Your task to perform on an android device: Go to Android settings Image 0: 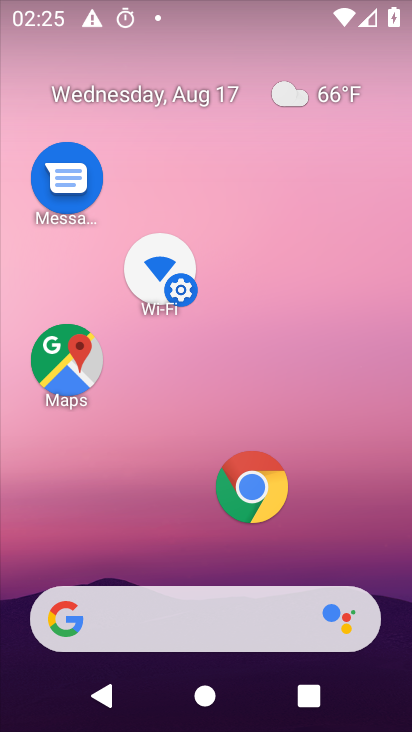
Step 0: press home button
Your task to perform on an android device: Go to Android settings Image 1: 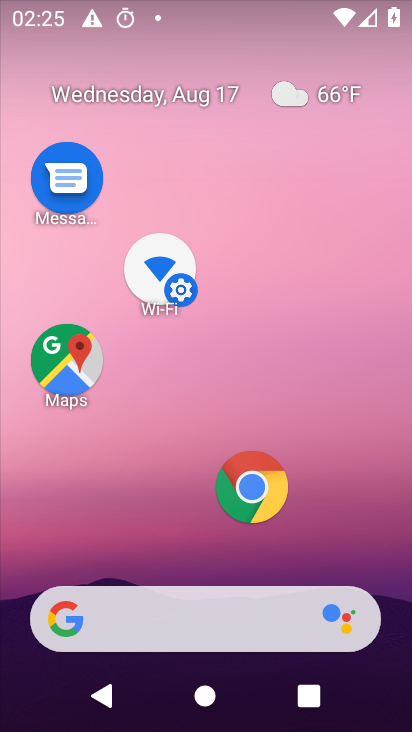
Step 1: drag from (208, 149) to (214, 68)
Your task to perform on an android device: Go to Android settings Image 2: 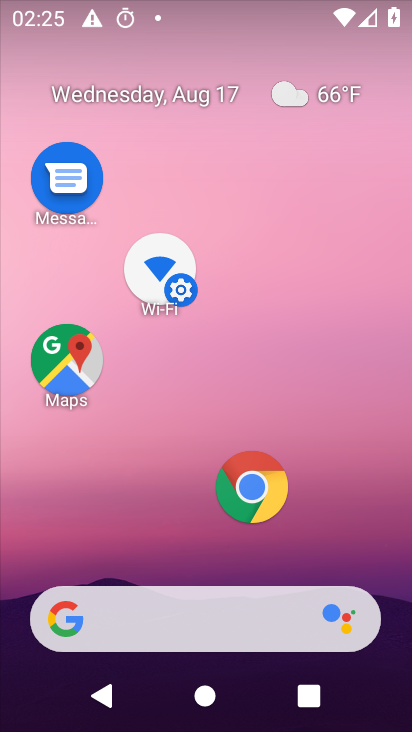
Step 2: drag from (342, 420) to (367, 47)
Your task to perform on an android device: Go to Android settings Image 3: 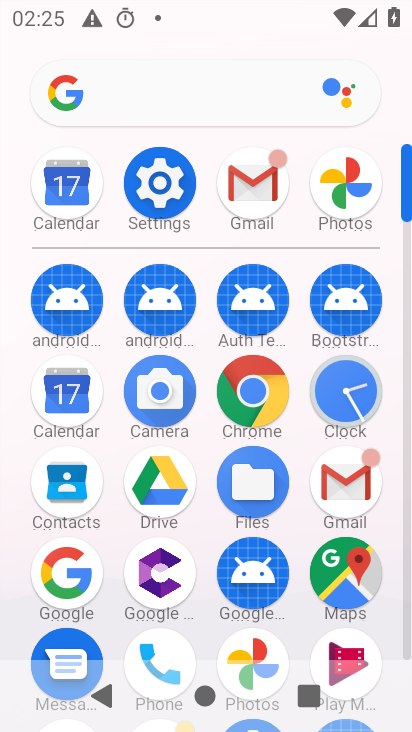
Step 3: click (163, 182)
Your task to perform on an android device: Go to Android settings Image 4: 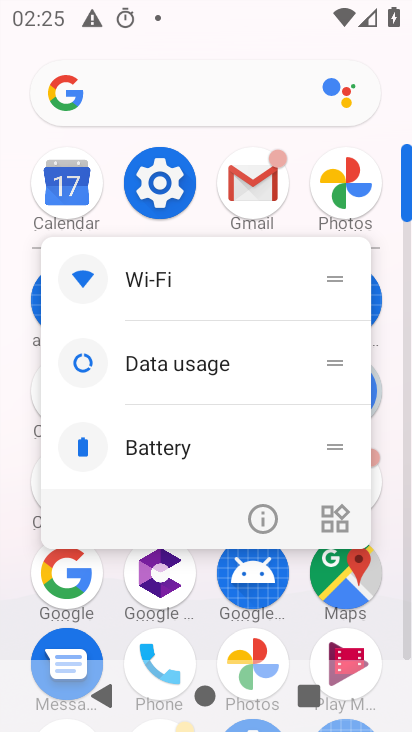
Step 4: click (163, 182)
Your task to perform on an android device: Go to Android settings Image 5: 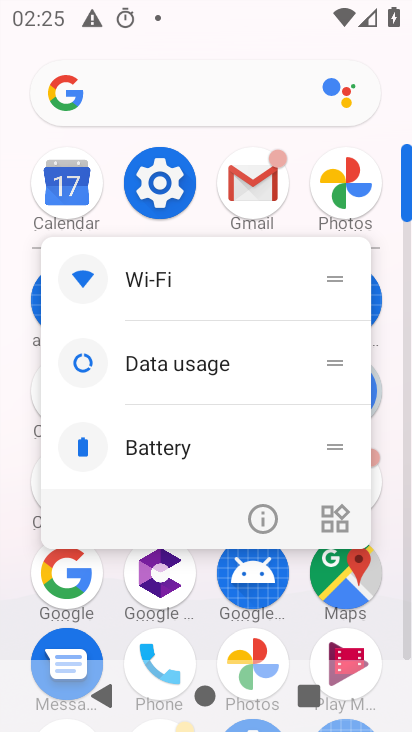
Step 5: click (163, 182)
Your task to perform on an android device: Go to Android settings Image 6: 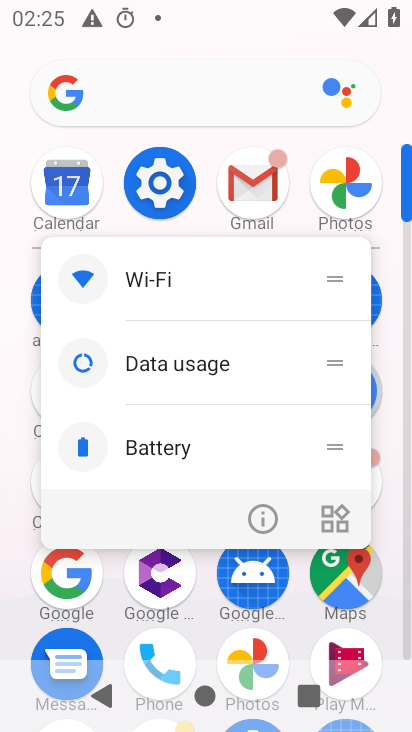
Step 6: click (163, 182)
Your task to perform on an android device: Go to Android settings Image 7: 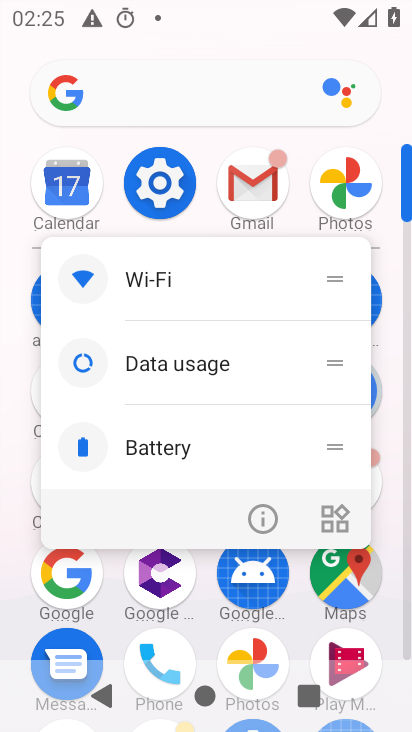
Step 7: click (163, 182)
Your task to perform on an android device: Go to Android settings Image 8: 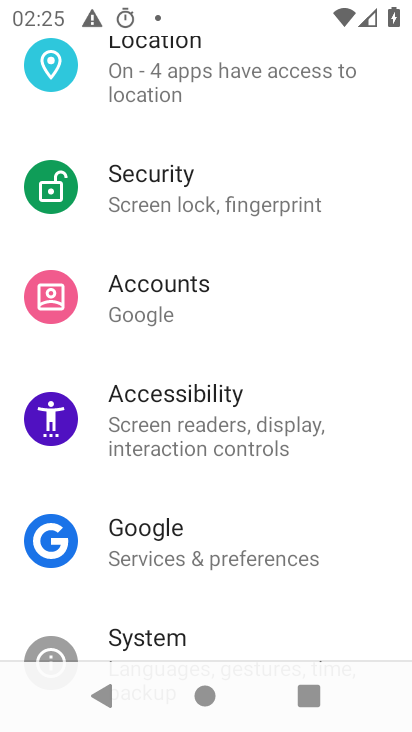
Step 8: task complete